Your task to perform on an android device: add a label to a message in the gmail app Image 0: 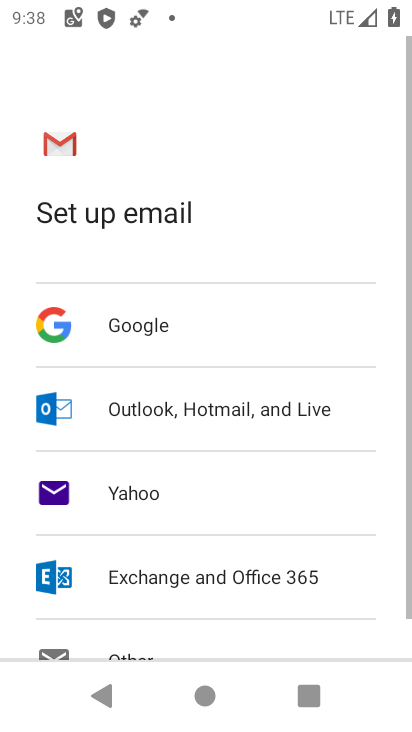
Step 0: press back button
Your task to perform on an android device: add a label to a message in the gmail app Image 1: 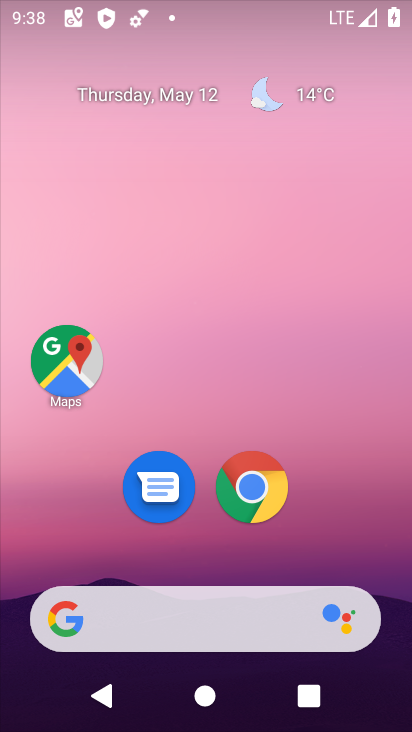
Step 1: drag from (24, 609) to (237, 229)
Your task to perform on an android device: add a label to a message in the gmail app Image 2: 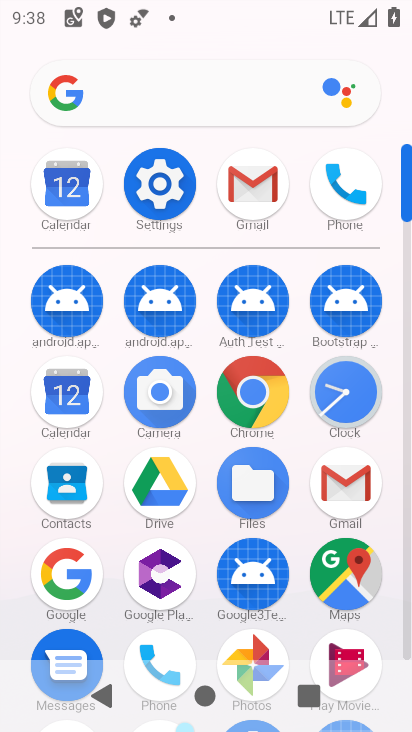
Step 2: click (267, 176)
Your task to perform on an android device: add a label to a message in the gmail app Image 3: 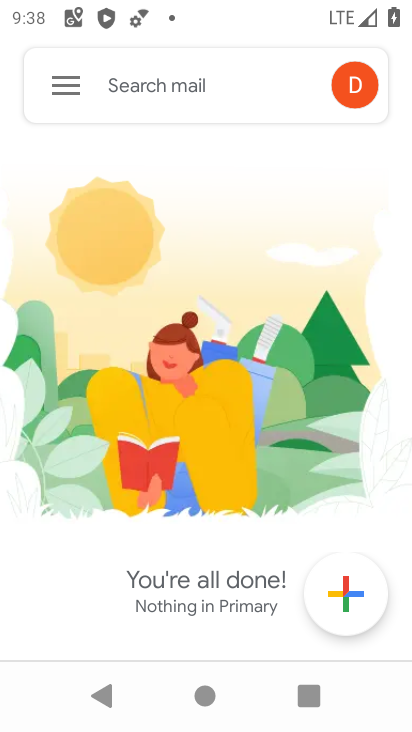
Step 3: task complete